Your task to perform on an android device: turn off notifications in google photos Image 0: 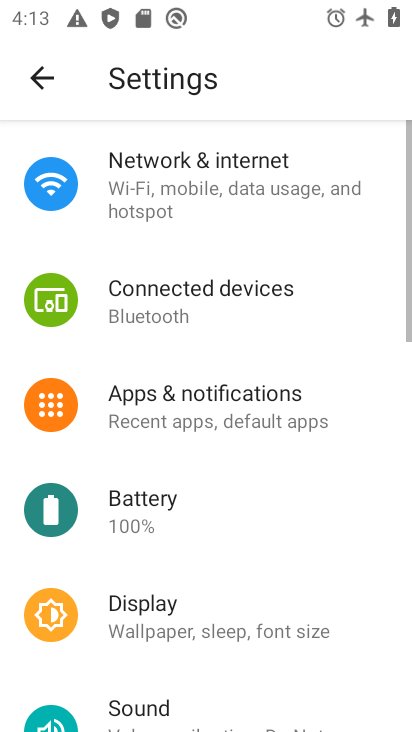
Step 0: press home button
Your task to perform on an android device: turn off notifications in google photos Image 1: 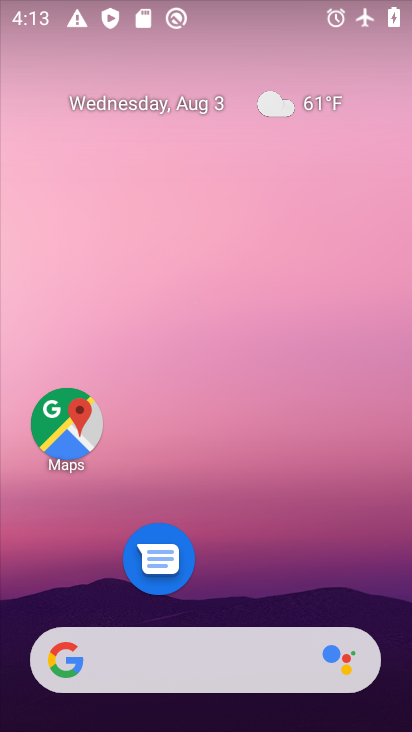
Step 1: drag from (160, 596) to (171, 187)
Your task to perform on an android device: turn off notifications in google photos Image 2: 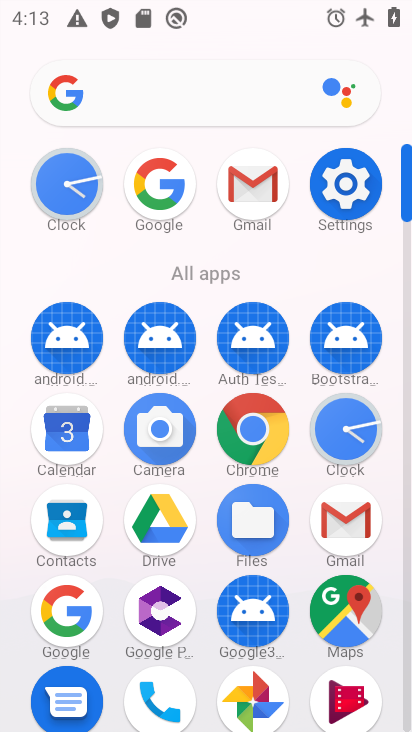
Step 2: click (252, 706)
Your task to perform on an android device: turn off notifications in google photos Image 3: 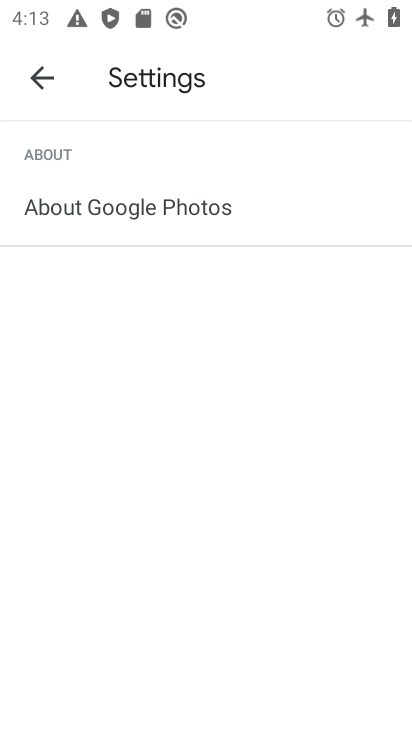
Step 3: click (40, 84)
Your task to perform on an android device: turn off notifications in google photos Image 4: 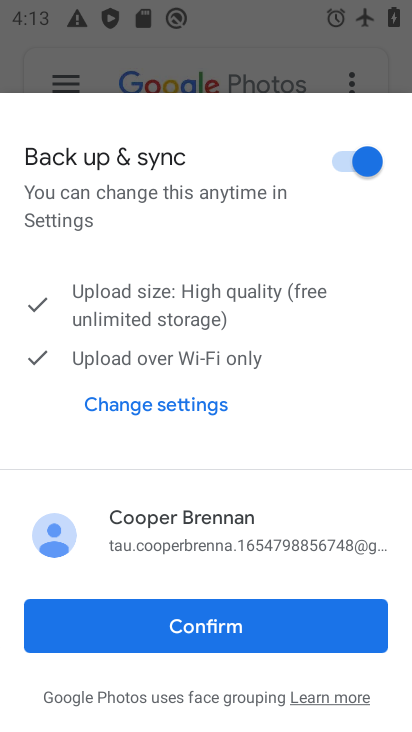
Step 4: click (204, 633)
Your task to perform on an android device: turn off notifications in google photos Image 5: 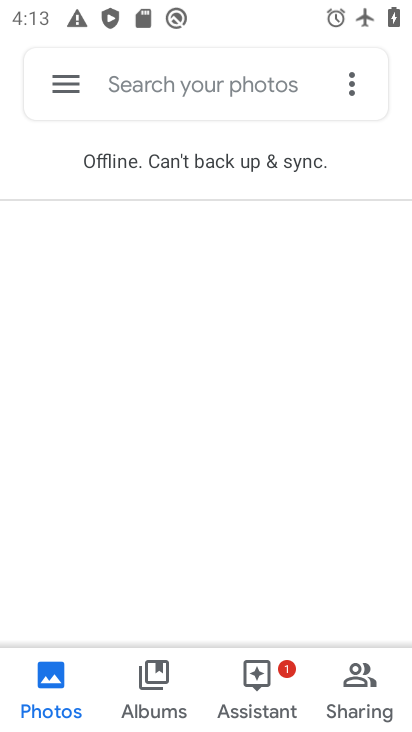
Step 5: click (68, 82)
Your task to perform on an android device: turn off notifications in google photos Image 6: 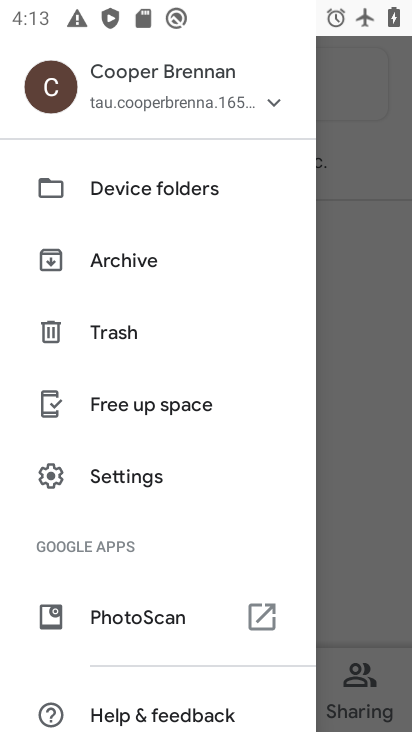
Step 6: click (62, 372)
Your task to perform on an android device: turn off notifications in google photos Image 7: 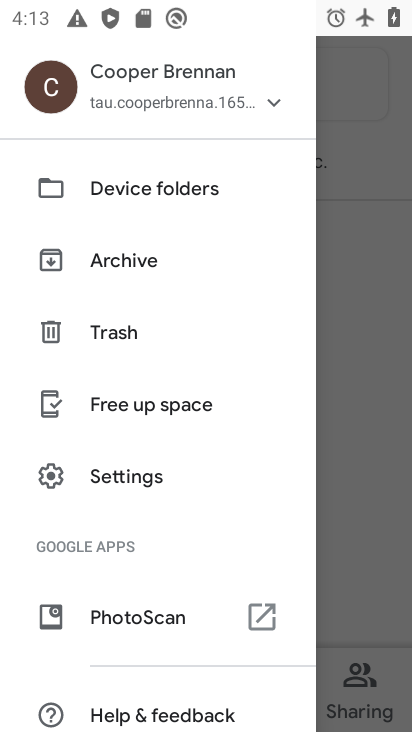
Step 7: click (139, 471)
Your task to perform on an android device: turn off notifications in google photos Image 8: 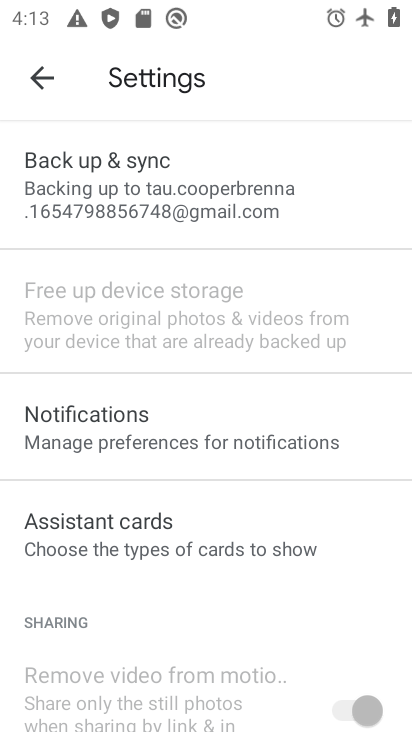
Step 8: click (62, 440)
Your task to perform on an android device: turn off notifications in google photos Image 9: 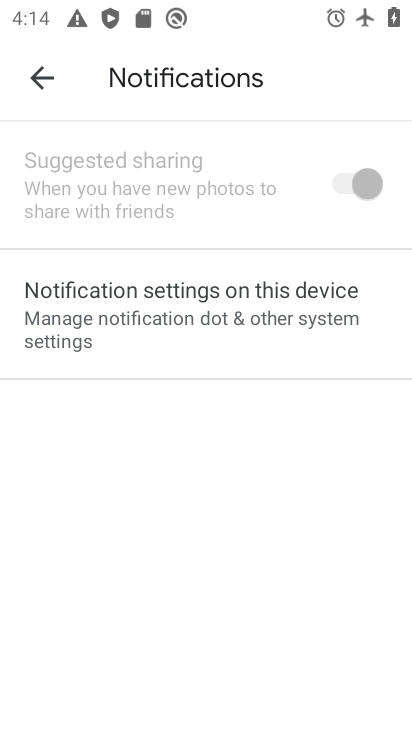
Step 9: click (95, 303)
Your task to perform on an android device: turn off notifications in google photos Image 10: 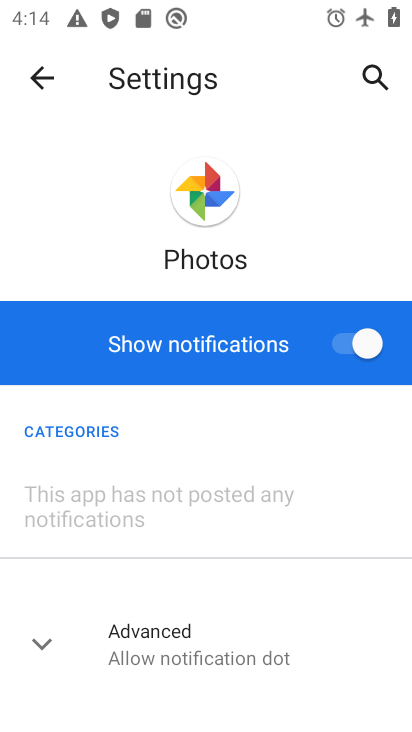
Step 10: click (353, 340)
Your task to perform on an android device: turn off notifications in google photos Image 11: 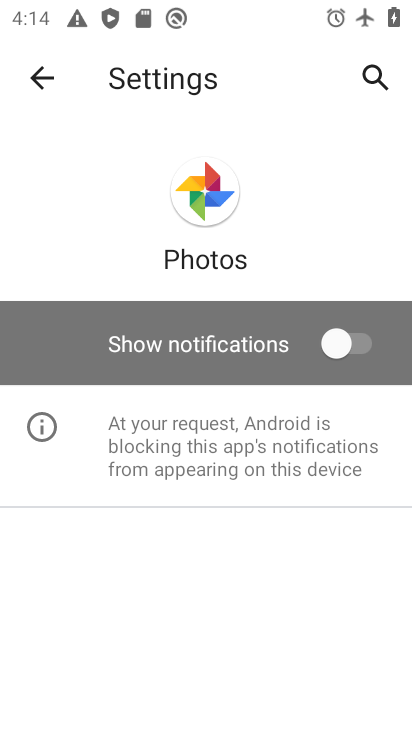
Step 11: task complete